Your task to perform on an android device: Play the last video I watched on Youtube Image 0: 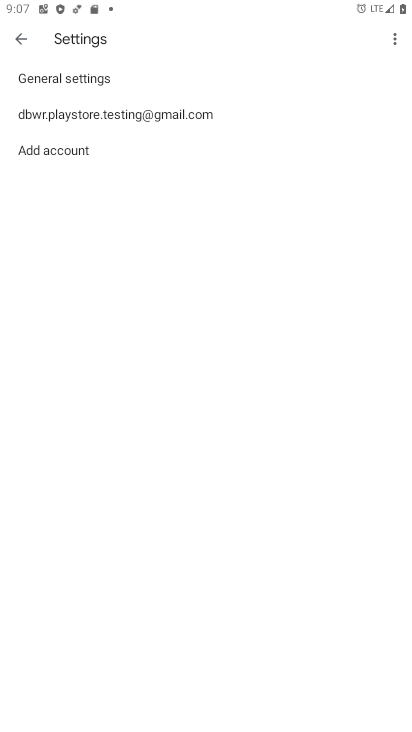
Step 0: press home button
Your task to perform on an android device: Play the last video I watched on Youtube Image 1: 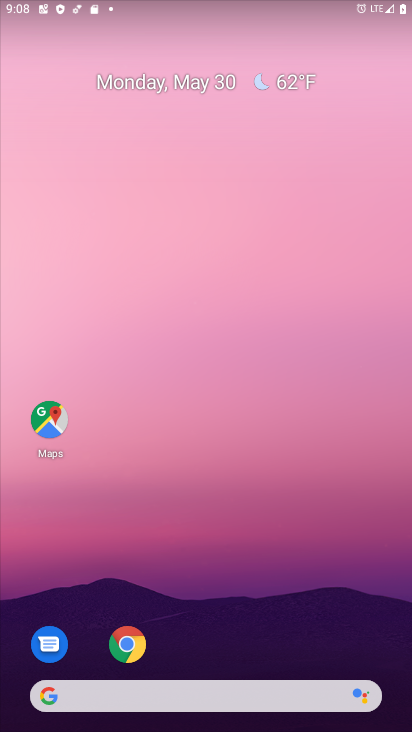
Step 1: drag from (409, 640) to (336, 110)
Your task to perform on an android device: Play the last video I watched on Youtube Image 2: 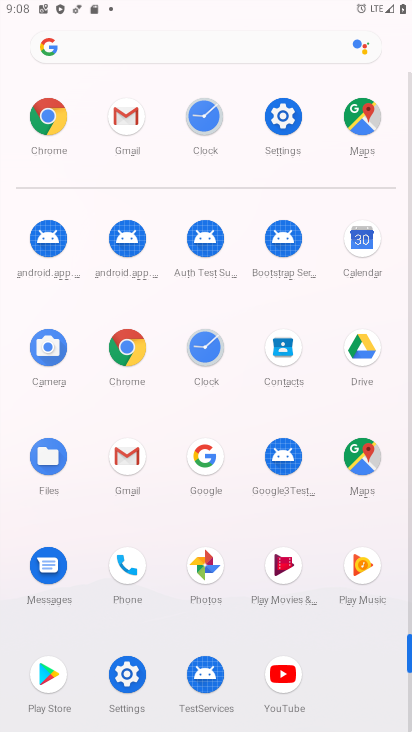
Step 2: click (282, 673)
Your task to perform on an android device: Play the last video I watched on Youtube Image 3: 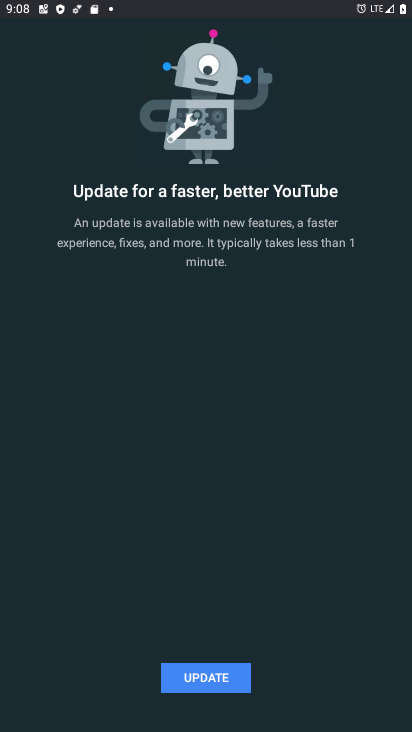
Step 3: click (208, 673)
Your task to perform on an android device: Play the last video I watched on Youtube Image 4: 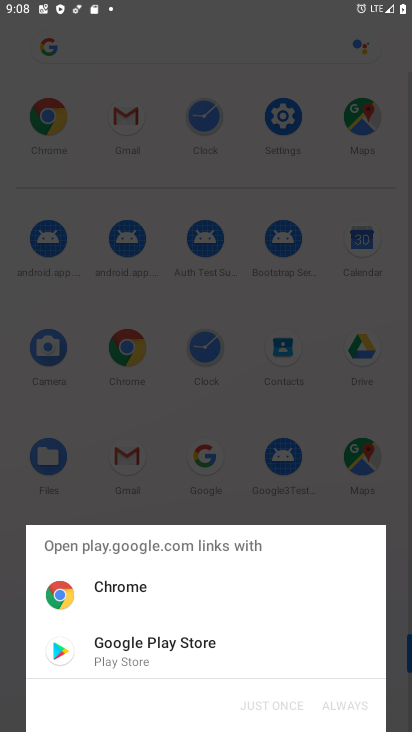
Step 4: click (142, 642)
Your task to perform on an android device: Play the last video I watched on Youtube Image 5: 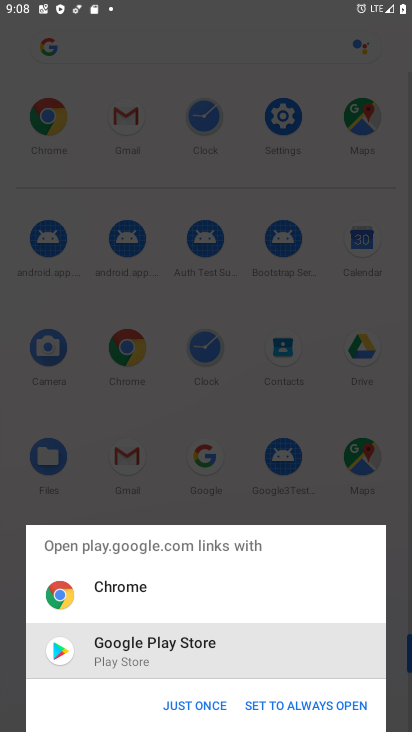
Step 5: click (207, 699)
Your task to perform on an android device: Play the last video I watched on Youtube Image 6: 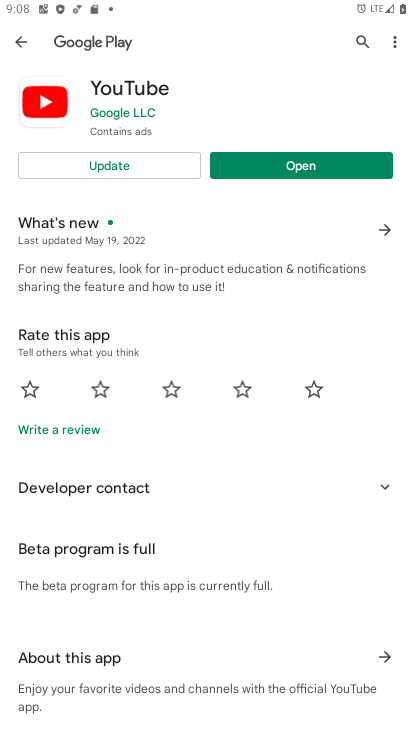
Step 6: click (111, 161)
Your task to perform on an android device: Play the last video I watched on Youtube Image 7: 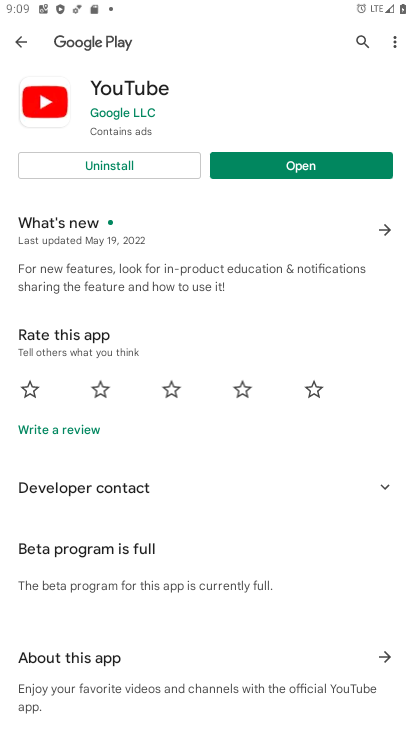
Step 7: click (295, 168)
Your task to perform on an android device: Play the last video I watched on Youtube Image 8: 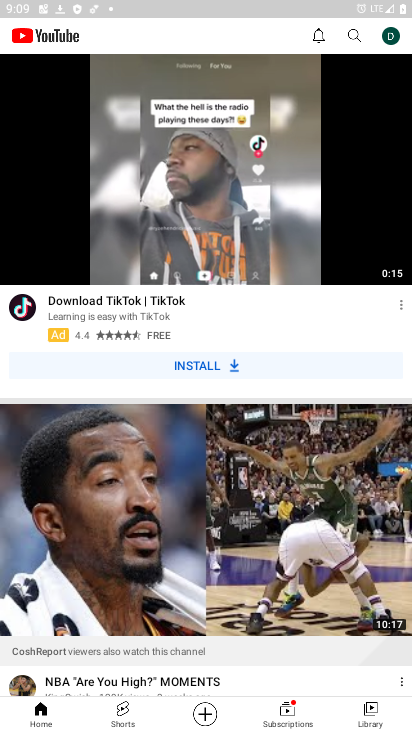
Step 8: click (383, 714)
Your task to perform on an android device: Play the last video I watched on Youtube Image 9: 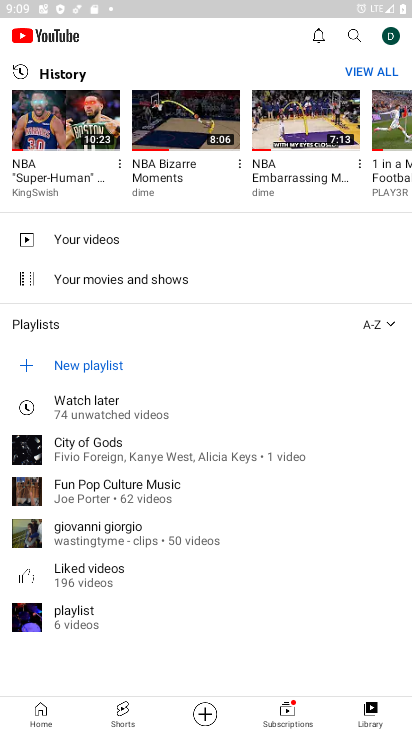
Step 9: click (64, 124)
Your task to perform on an android device: Play the last video I watched on Youtube Image 10: 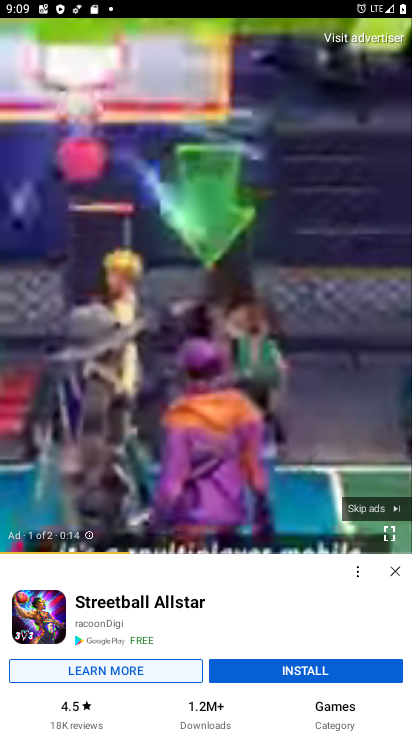
Step 10: click (369, 506)
Your task to perform on an android device: Play the last video I watched on Youtube Image 11: 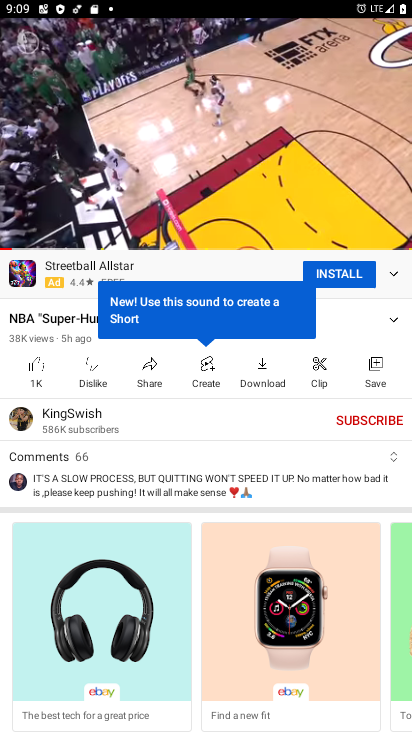
Step 11: click (210, 124)
Your task to perform on an android device: Play the last video I watched on Youtube Image 12: 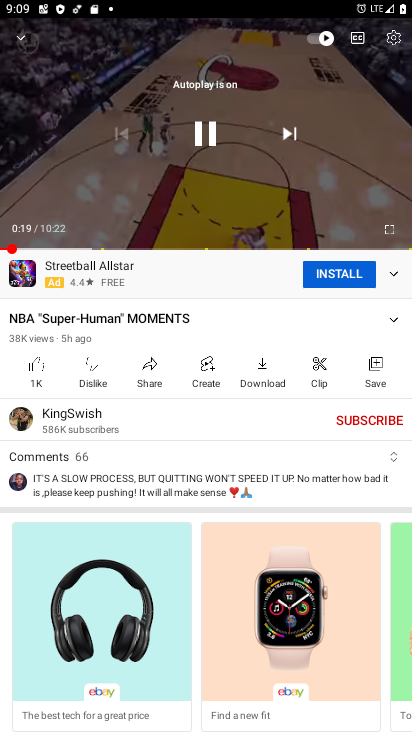
Step 12: click (207, 129)
Your task to perform on an android device: Play the last video I watched on Youtube Image 13: 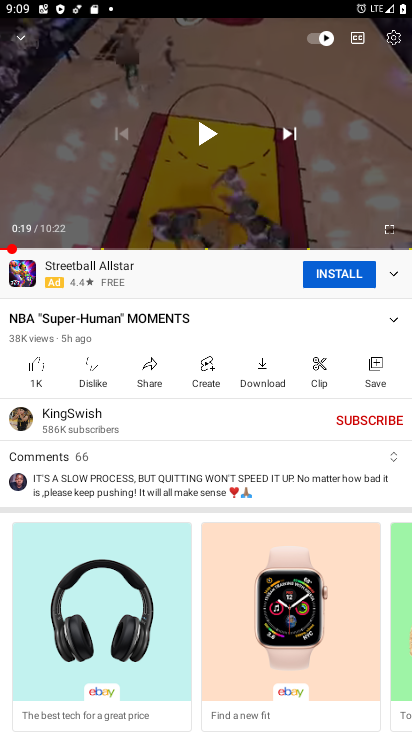
Step 13: task complete